Your task to perform on an android device: toggle priority inbox in the gmail app Image 0: 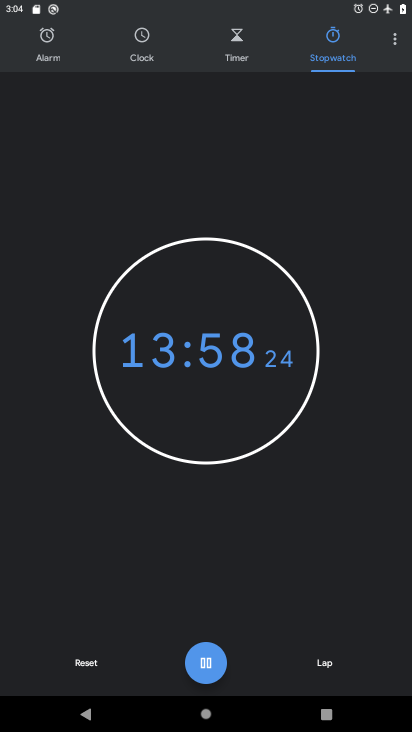
Step 0: press home button
Your task to perform on an android device: toggle priority inbox in the gmail app Image 1: 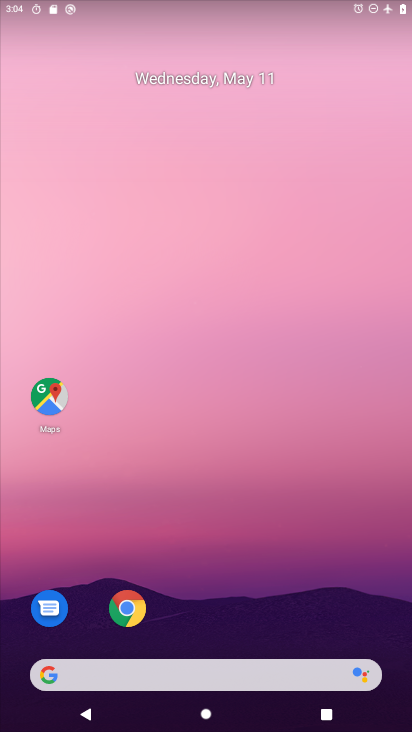
Step 1: drag from (233, 647) to (240, 223)
Your task to perform on an android device: toggle priority inbox in the gmail app Image 2: 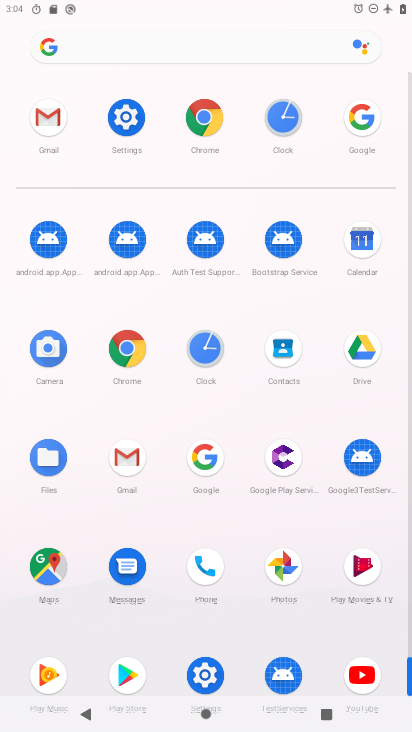
Step 2: click (129, 456)
Your task to perform on an android device: toggle priority inbox in the gmail app Image 3: 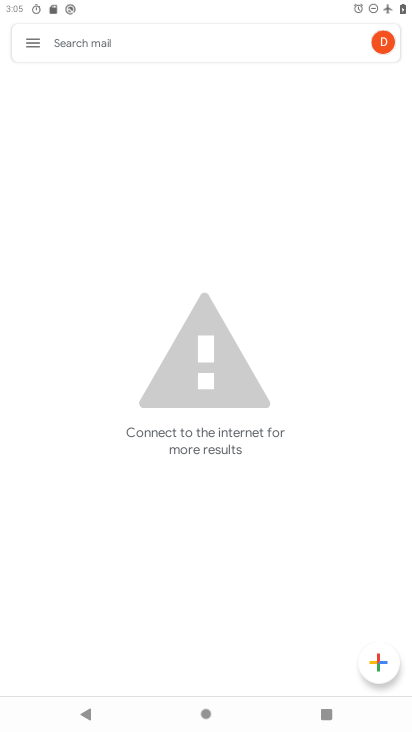
Step 3: click (28, 41)
Your task to perform on an android device: toggle priority inbox in the gmail app Image 4: 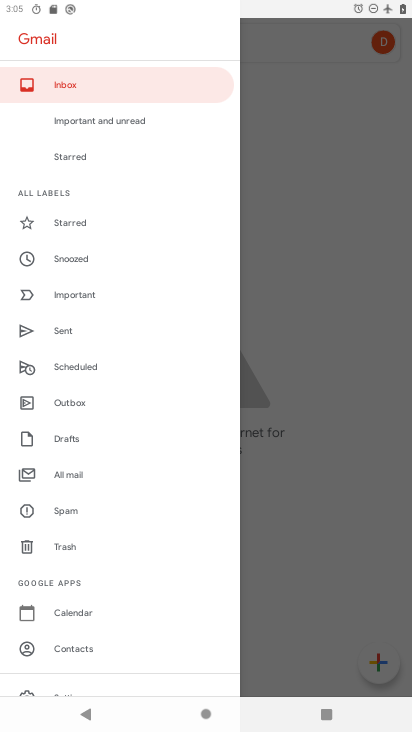
Step 4: drag from (116, 499) to (151, 140)
Your task to perform on an android device: toggle priority inbox in the gmail app Image 5: 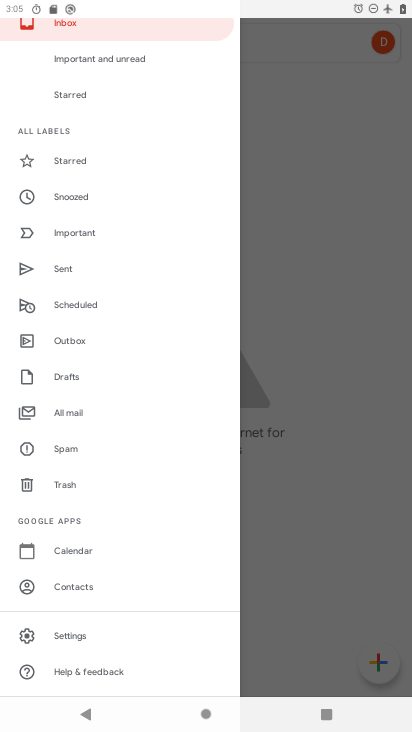
Step 5: click (92, 636)
Your task to perform on an android device: toggle priority inbox in the gmail app Image 6: 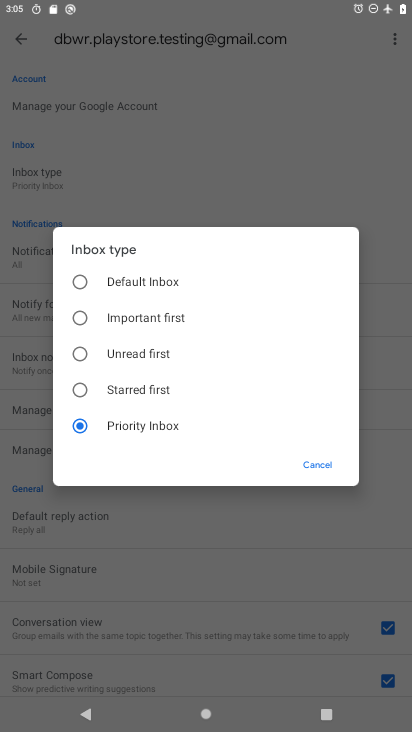
Step 6: task complete